Your task to perform on an android device: Open internet settings Image 0: 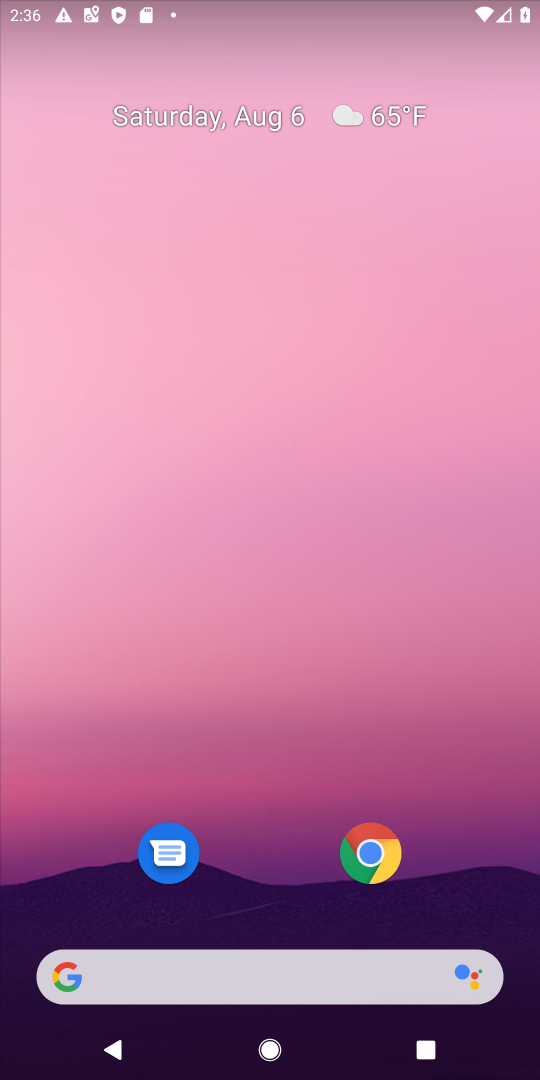
Step 0: drag from (235, 744) to (317, 95)
Your task to perform on an android device: Open internet settings Image 1: 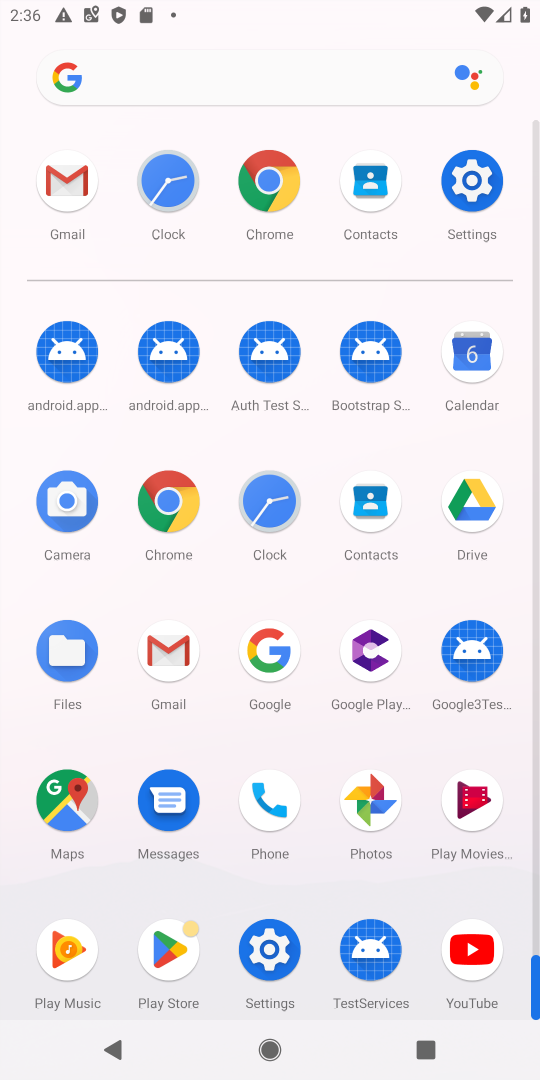
Step 1: click (474, 183)
Your task to perform on an android device: Open internet settings Image 2: 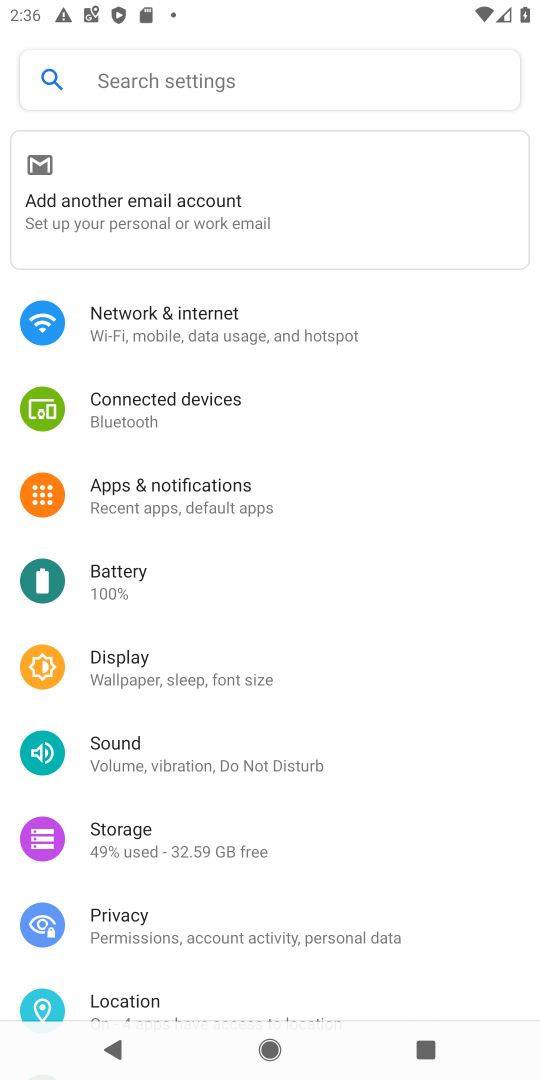
Step 2: click (248, 324)
Your task to perform on an android device: Open internet settings Image 3: 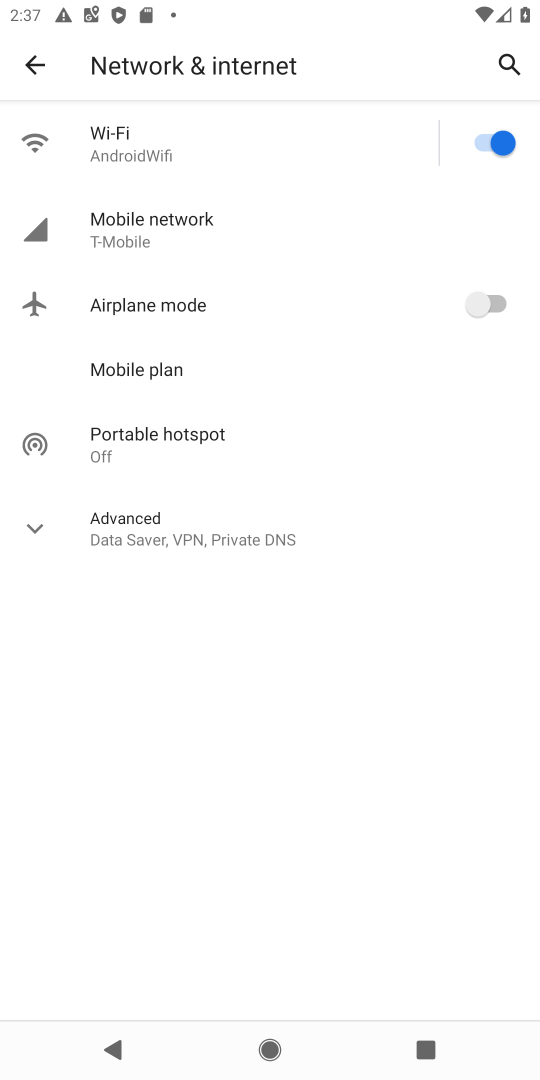
Step 3: task complete